Your task to perform on an android device: Do I have any events tomorrow? Image 0: 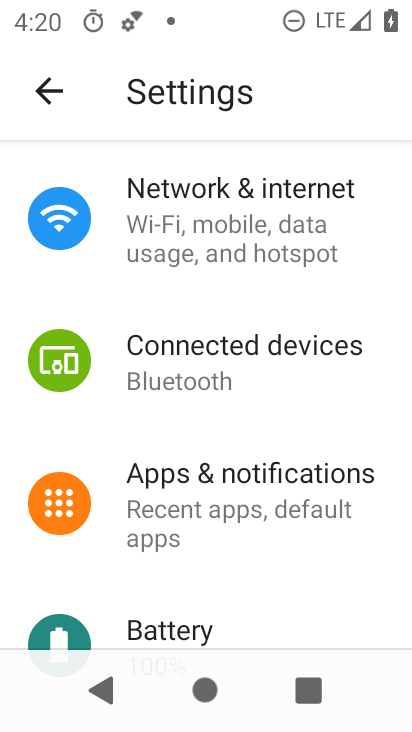
Step 0: press home button
Your task to perform on an android device: Do I have any events tomorrow? Image 1: 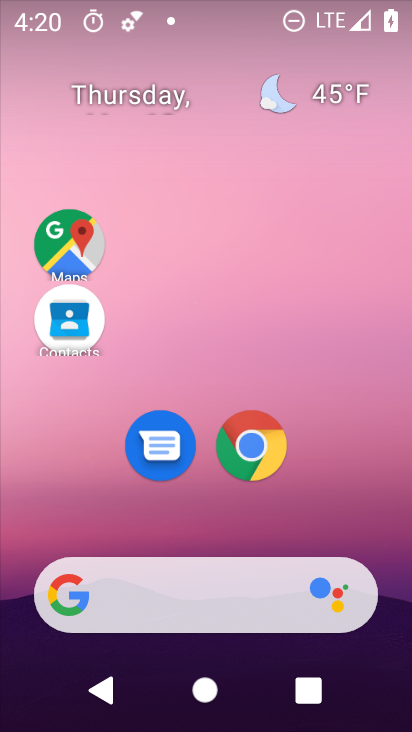
Step 1: drag from (328, 487) to (213, 14)
Your task to perform on an android device: Do I have any events tomorrow? Image 2: 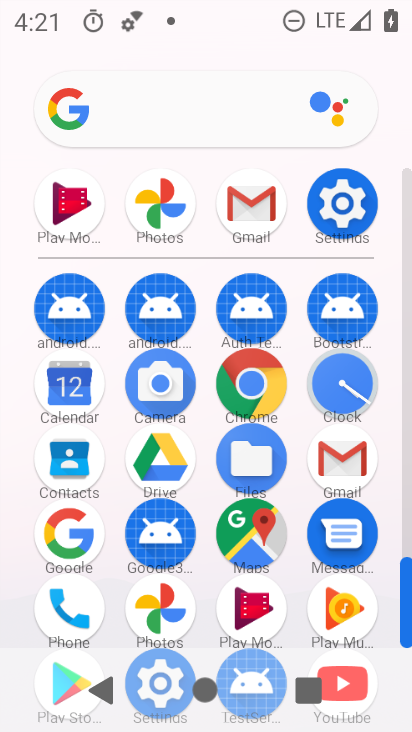
Step 2: click (68, 393)
Your task to perform on an android device: Do I have any events tomorrow? Image 3: 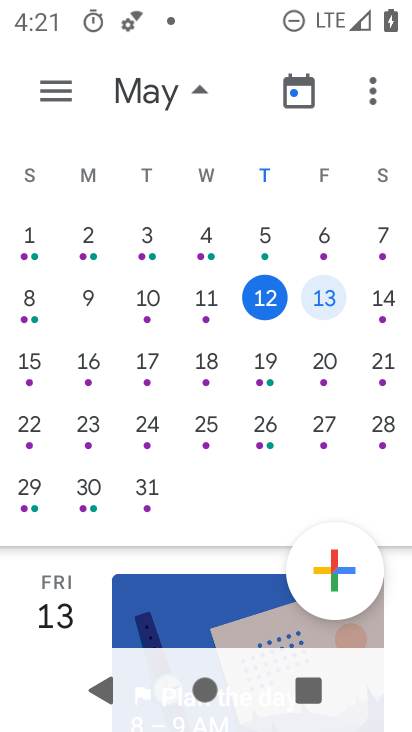
Step 3: click (69, 100)
Your task to perform on an android device: Do I have any events tomorrow? Image 4: 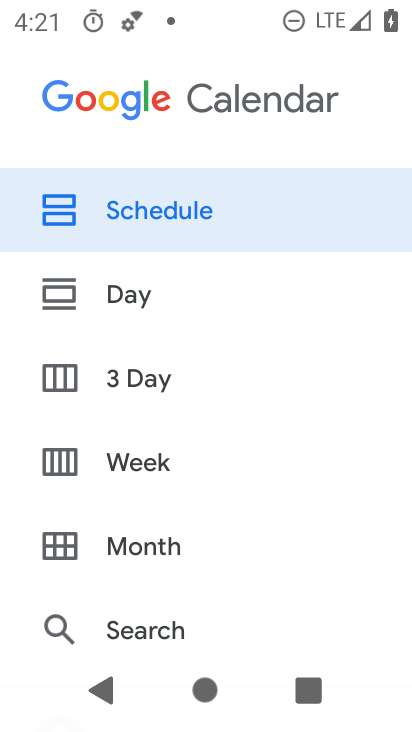
Step 4: click (129, 201)
Your task to perform on an android device: Do I have any events tomorrow? Image 5: 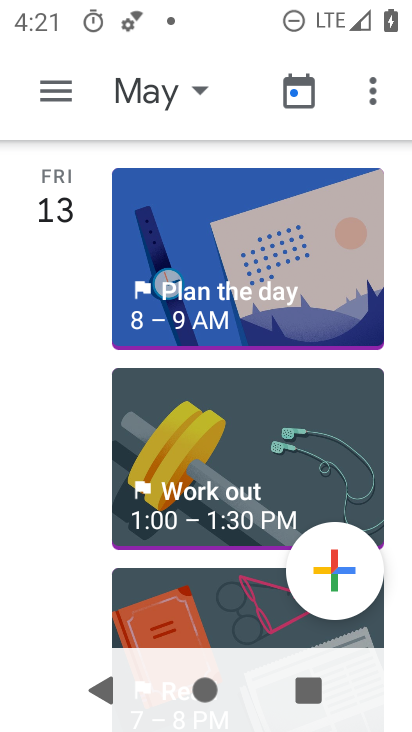
Step 5: task complete